Your task to perform on an android device: Open calendar and show me the first week of next month Image 0: 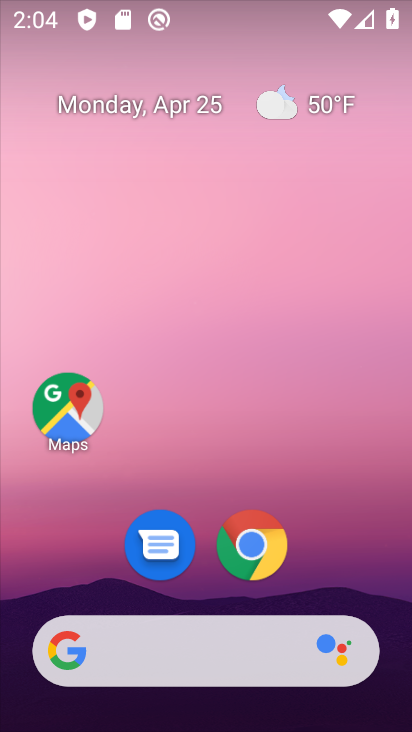
Step 0: drag from (336, 558) to (163, 19)
Your task to perform on an android device: Open calendar and show me the first week of next month Image 1: 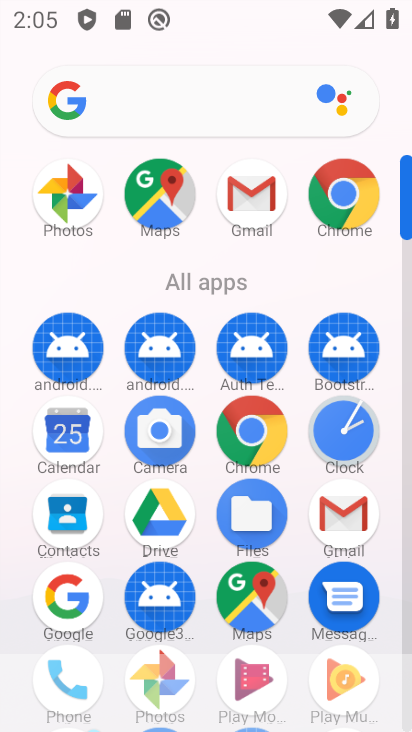
Step 1: click (75, 445)
Your task to perform on an android device: Open calendar and show me the first week of next month Image 2: 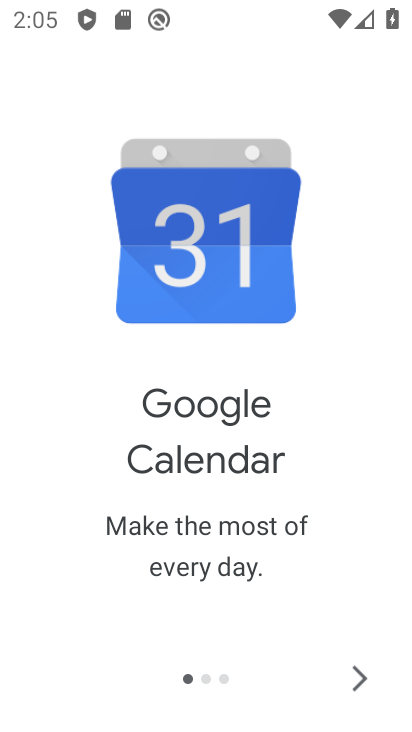
Step 2: click (366, 673)
Your task to perform on an android device: Open calendar and show me the first week of next month Image 3: 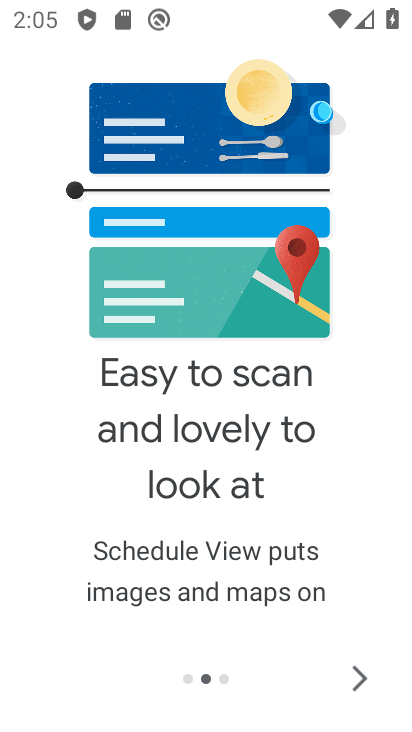
Step 3: click (366, 673)
Your task to perform on an android device: Open calendar and show me the first week of next month Image 4: 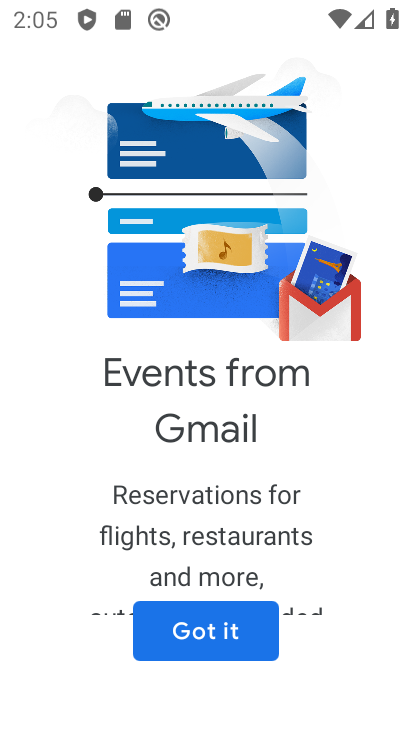
Step 4: click (210, 628)
Your task to perform on an android device: Open calendar and show me the first week of next month Image 5: 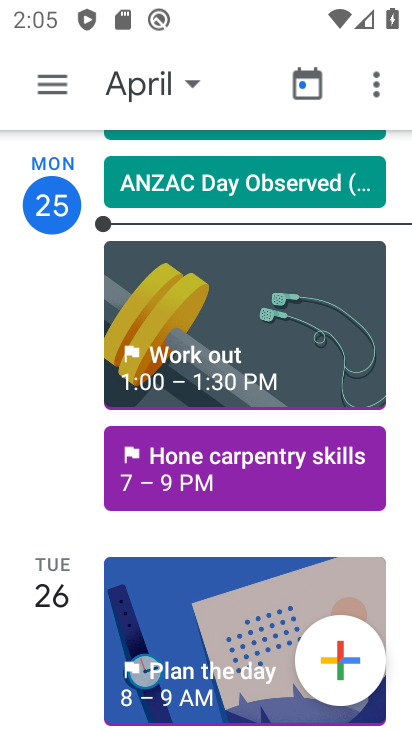
Step 5: click (58, 86)
Your task to perform on an android device: Open calendar and show me the first week of next month Image 6: 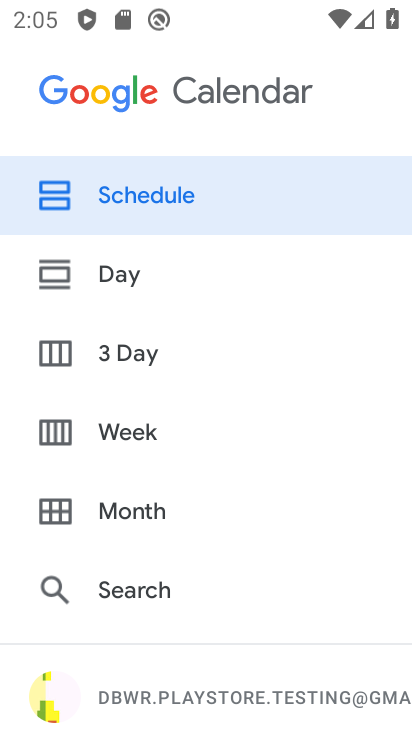
Step 6: click (119, 439)
Your task to perform on an android device: Open calendar and show me the first week of next month Image 7: 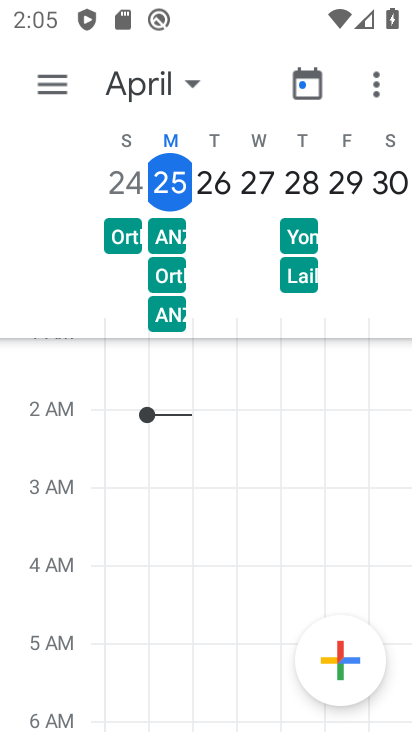
Step 7: click (186, 81)
Your task to perform on an android device: Open calendar and show me the first week of next month Image 8: 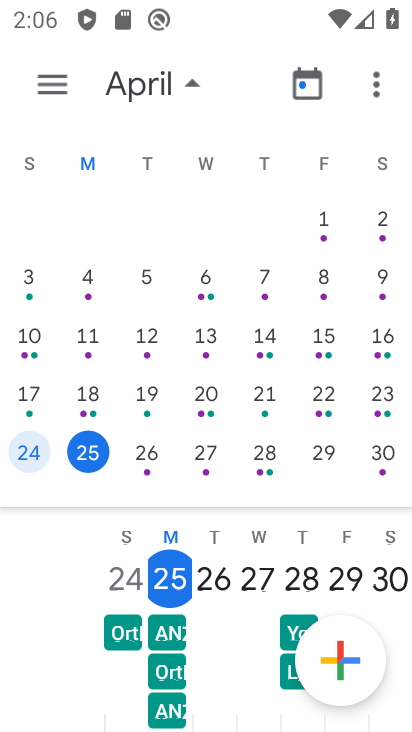
Step 8: drag from (353, 362) to (9, 238)
Your task to perform on an android device: Open calendar and show me the first week of next month Image 9: 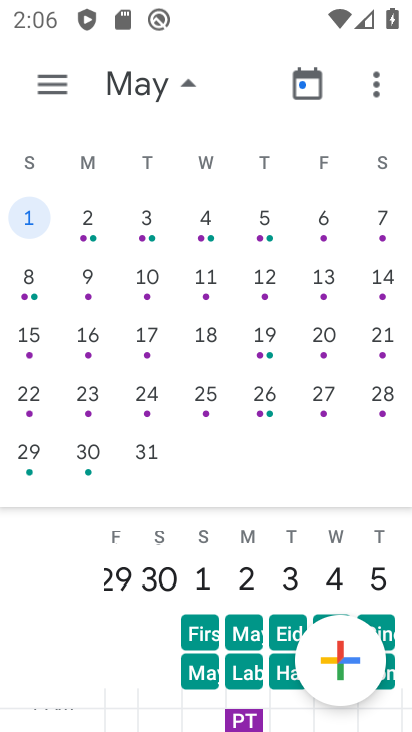
Step 9: click (42, 222)
Your task to perform on an android device: Open calendar and show me the first week of next month Image 10: 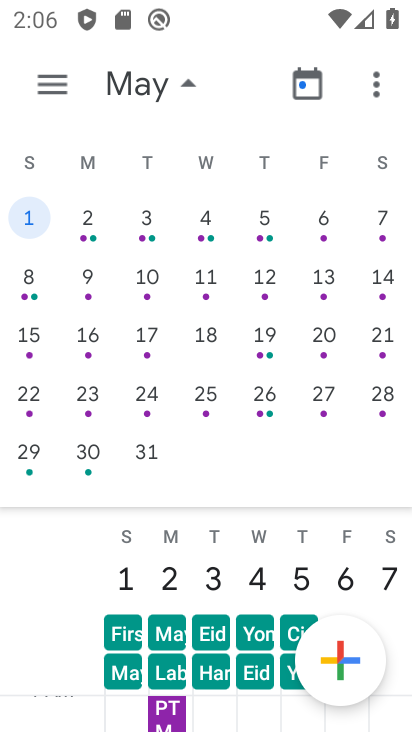
Step 10: task complete